Your task to perform on an android device: check battery use Image 0: 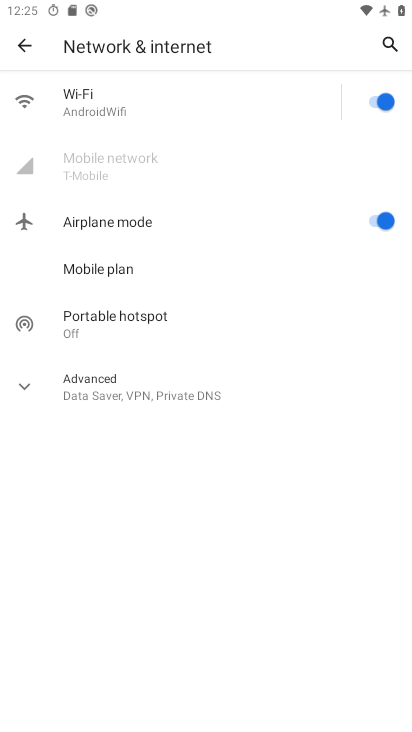
Step 0: press home button
Your task to perform on an android device: check battery use Image 1: 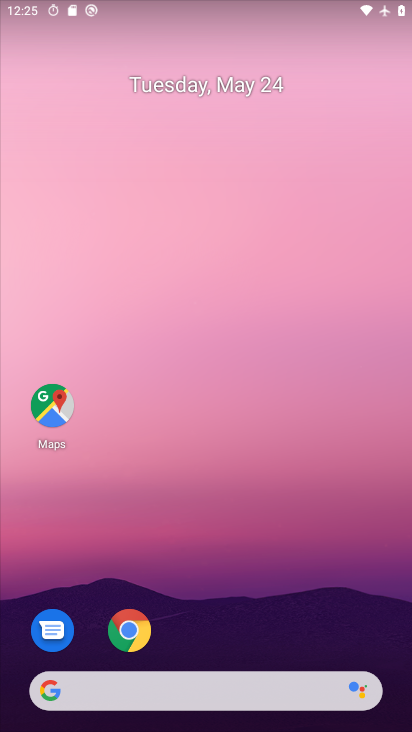
Step 1: drag from (217, 642) to (228, 220)
Your task to perform on an android device: check battery use Image 2: 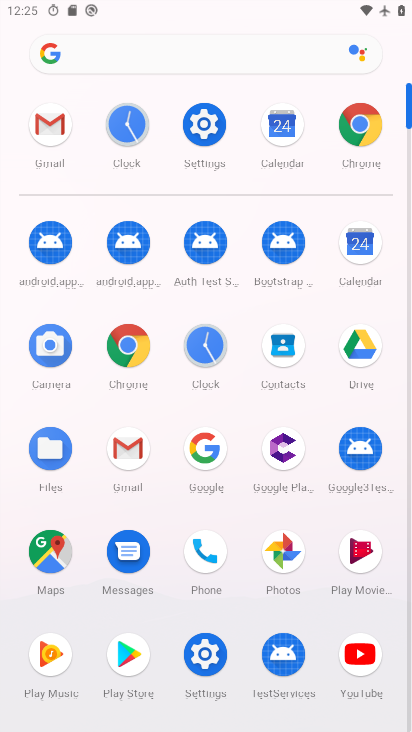
Step 2: click (206, 133)
Your task to perform on an android device: check battery use Image 3: 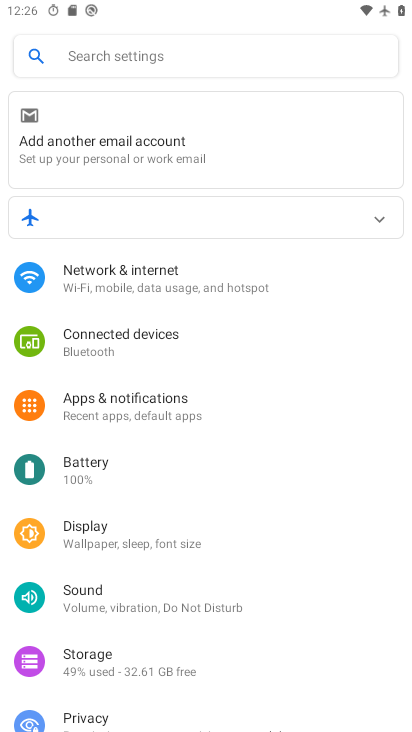
Step 3: click (163, 474)
Your task to perform on an android device: check battery use Image 4: 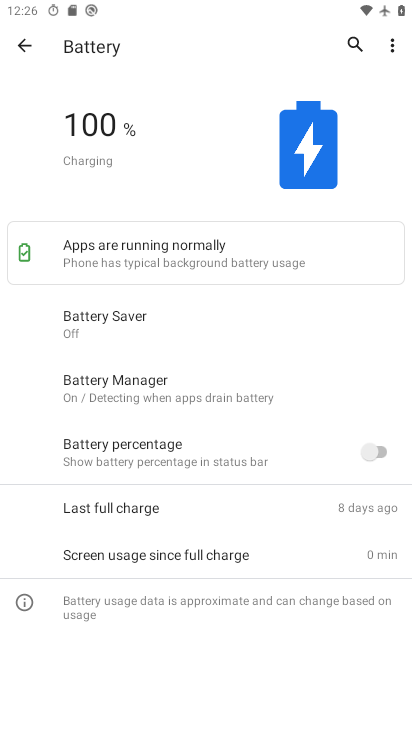
Step 4: click (392, 47)
Your task to perform on an android device: check battery use Image 5: 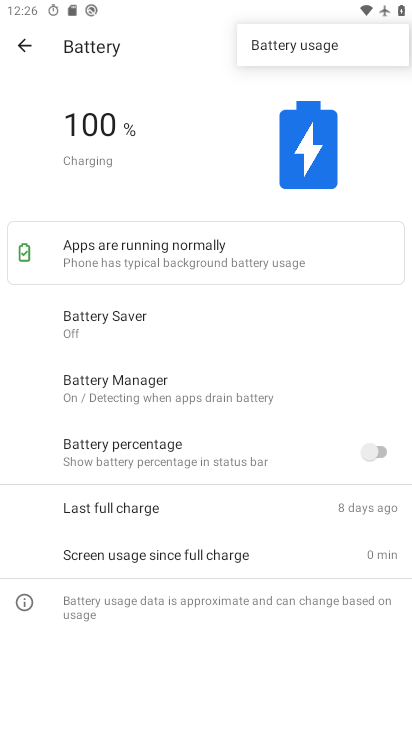
Step 5: click (295, 44)
Your task to perform on an android device: check battery use Image 6: 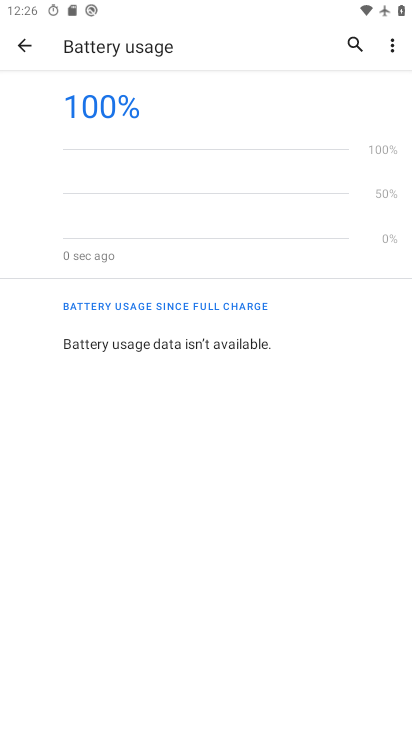
Step 6: task complete